Your task to perform on an android device: toggle javascript in the chrome app Image 0: 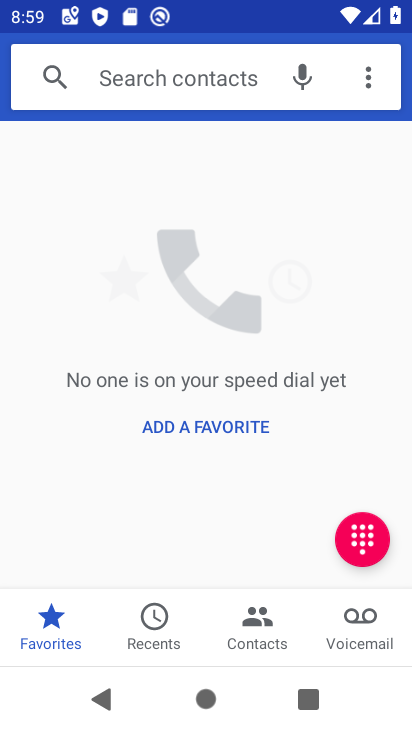
Step 0: press home button
Your task to perform on an android device: toggle javascript in the chrome app Image 1: 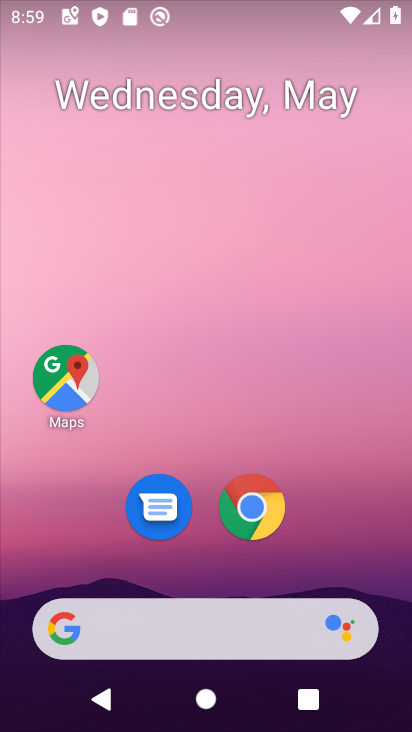
Step 1: click (248, 502)
Your task to perform on an android device: toggle javascript in the chrome app Image 2: 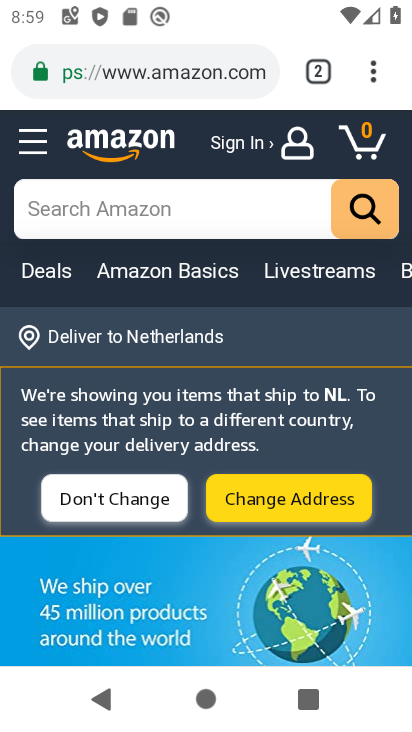
Step 2: click (388, 88)
Your task to perform on an android device: toggle javascript in the chrome app Image 3: 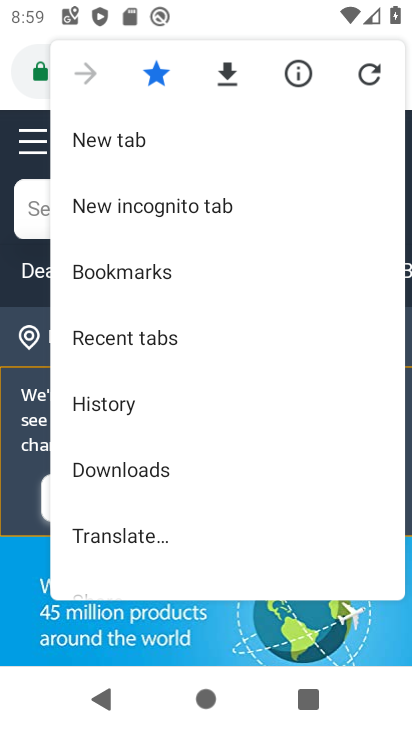
Step 3: drag from (196, 547) to (201, 138)
Your task to perform on an android device: toggle javascript in the chrome app Image 4: 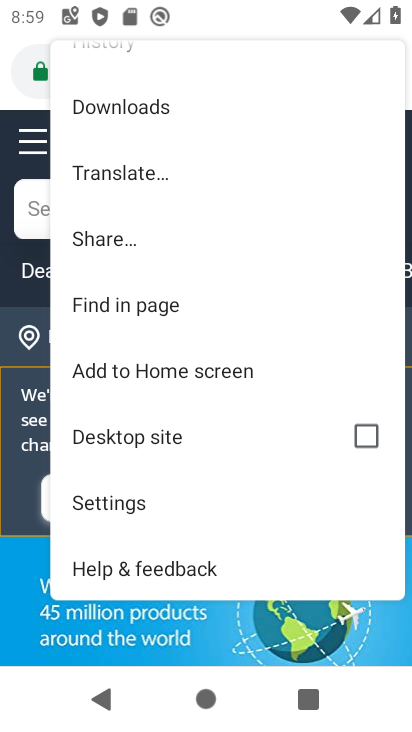
Step 4: click (198, 517)
Your task to perform on an android device: toggle javascript in the chrome app Image 5: 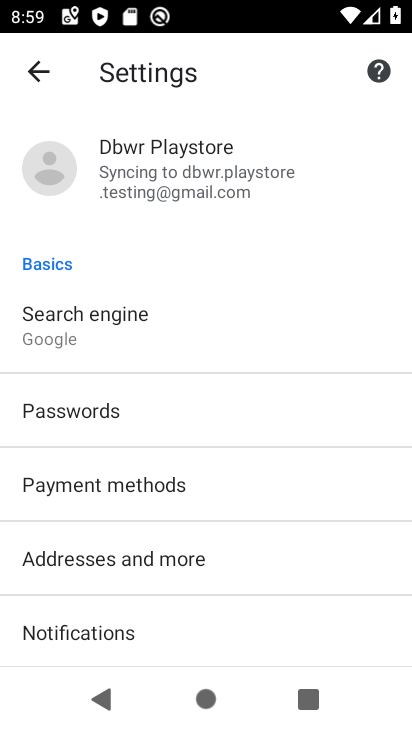
Step 5: drag from (265, 637) to (240, 172)
Your task to perform on an android device: toggle javascript in the chrome app Image 6: 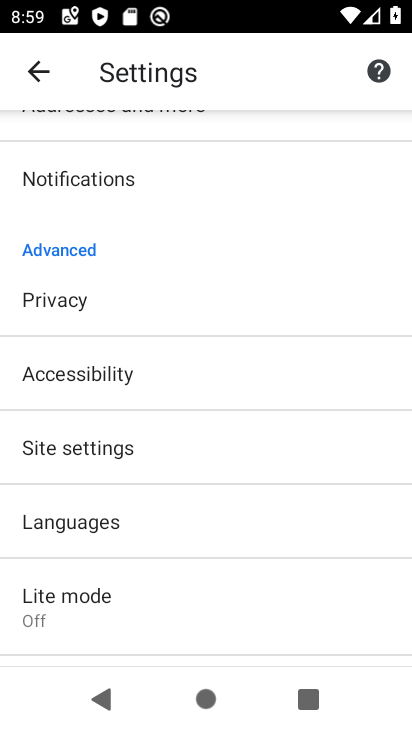
Step 6: click (220, 465)
Your task to perform on an android device: toggle javascript in the chrome app Image 7: 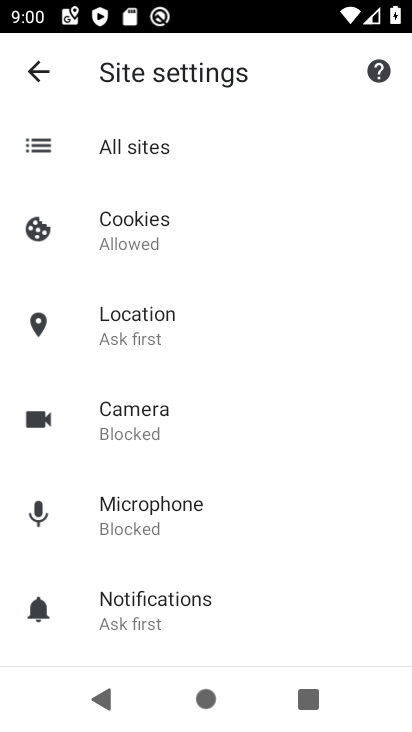
Step 7: drag from (267, 557) to (194, 264)
Your task to perform on an android device: toggle javascript in the chrome app Image 8: 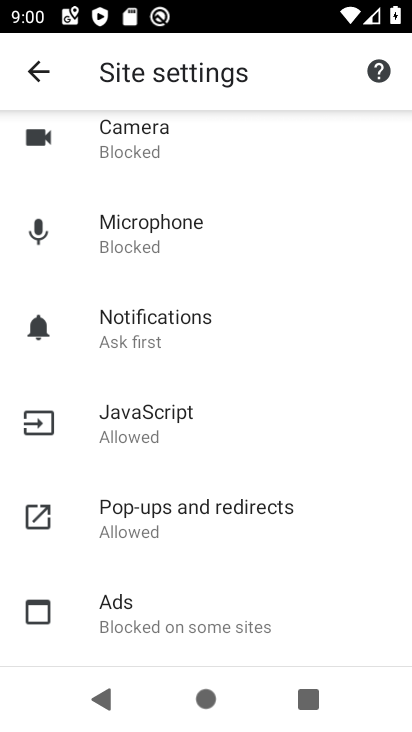
Step 8: click (234, 419)
Your task to perform on an android device: toggle javascript in the chrome app Image 9: 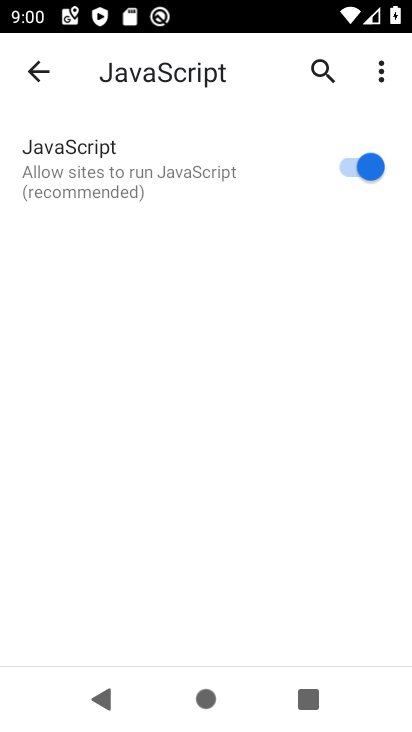
Step 9: click (353, 174)
Your task to perform on an android device: toggle javascript in the chrome app Image 10: 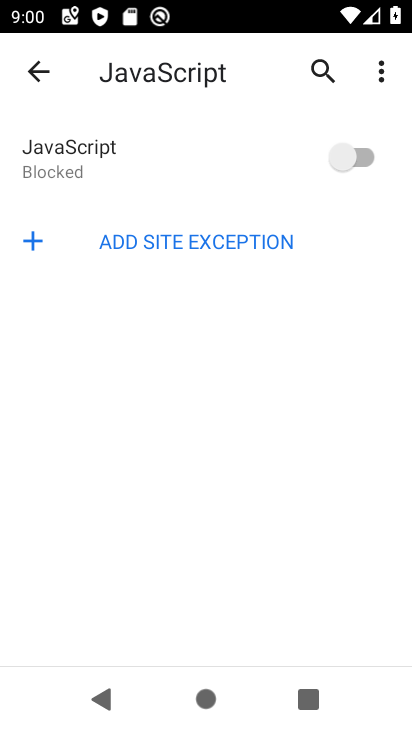
Step 10: task complete